Your task to perform on an android device: change keyboard looks Image 0: 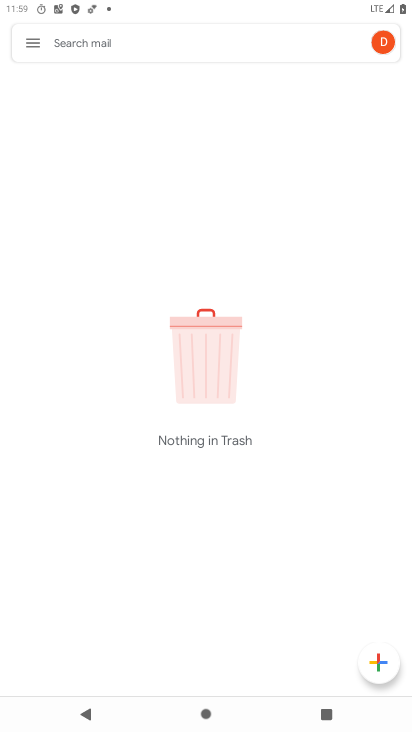
Step 0: press home button
Your task to perform on an android device: change keyboard looks Image 1: 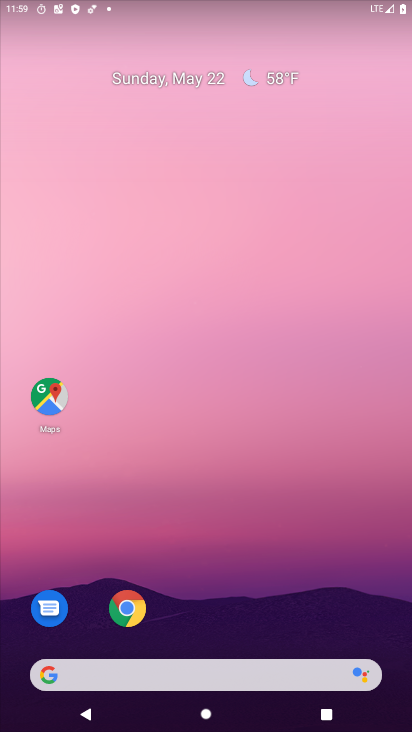
Step 1: drag from (230, 634) to (169, 94)
Your task to perform on an android device: change keyboard looks Image 2: 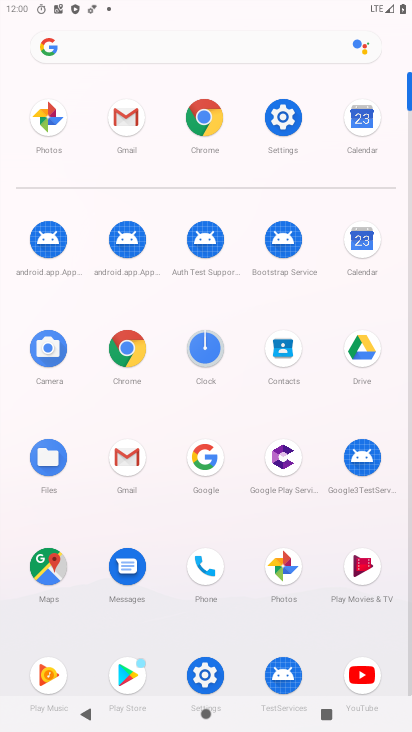
Step 2: click (291, 140)
Your task to perform on an android device: change keyboard looks Image 3: 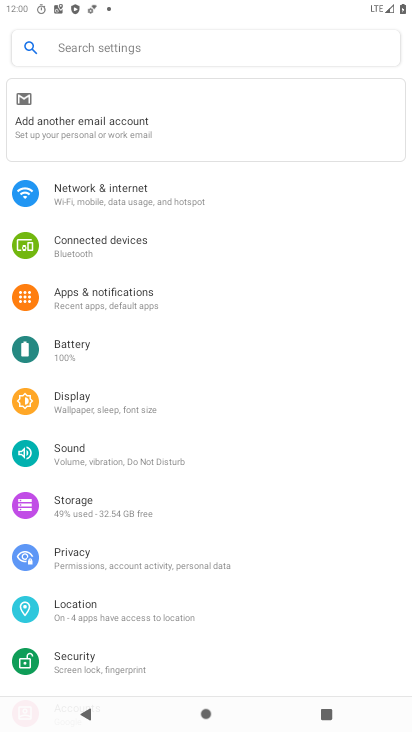
Step 3: drag from (170, 666) to (148, 191)
Your task to perform on an android device: change keyboard looks Image 4: 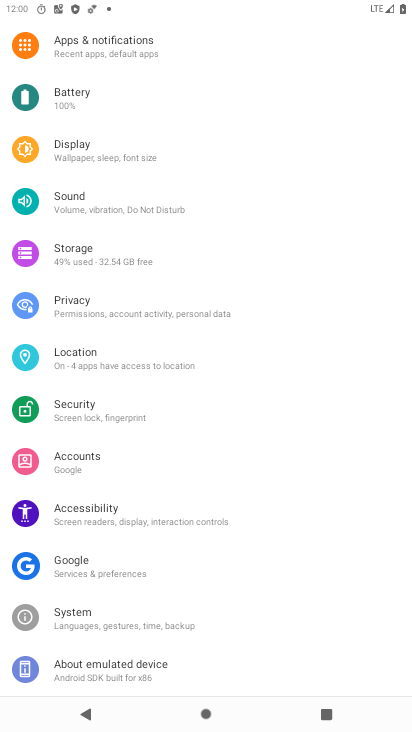
Step 4: click (185, 683)
Your task to perform on an android device: change keyboard looks Image 5: 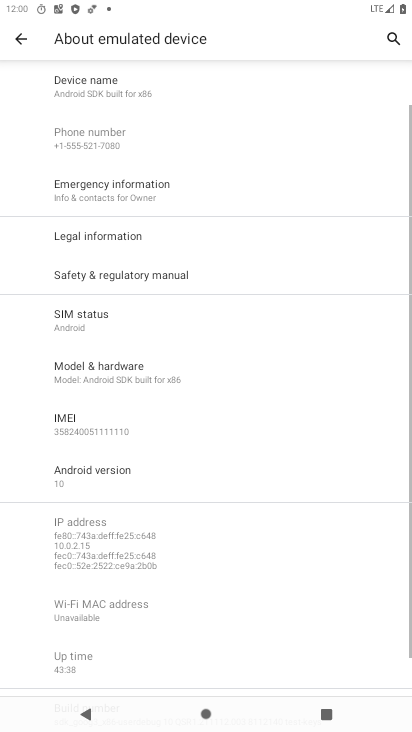
Step 5: click (14, 34)
Your task to perform on an android device: change keyboard looks Image 6: 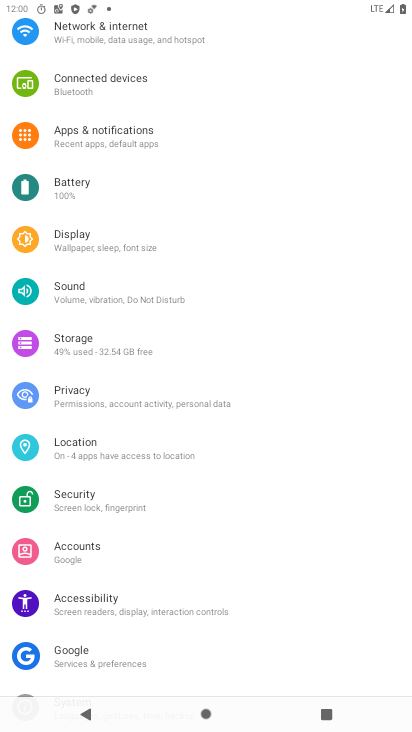
Step 6: drag from (225, 673) to (156, 118)
Your task to perform on an android device: change keyboard looks Image 7: 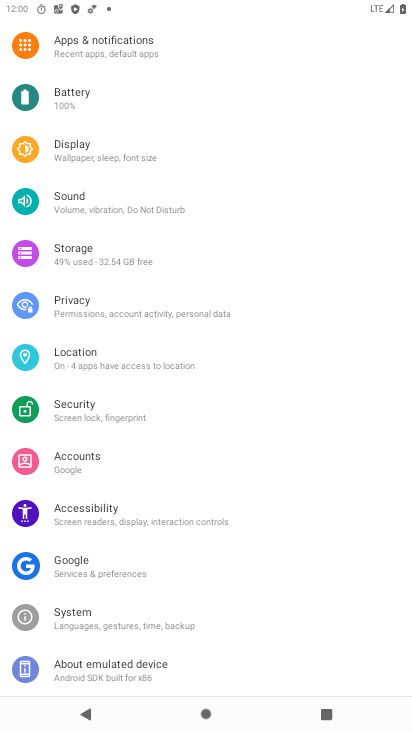
Step 7: click (261, 624)
Your task to perform on an android device: change keyboard looks Image 8: 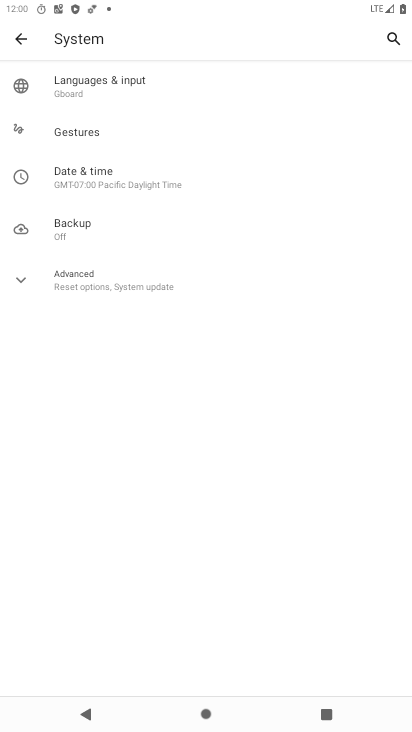
Step 8: click (211, 77)
Your task to perform on an android device: change keyboard looks Image 9: 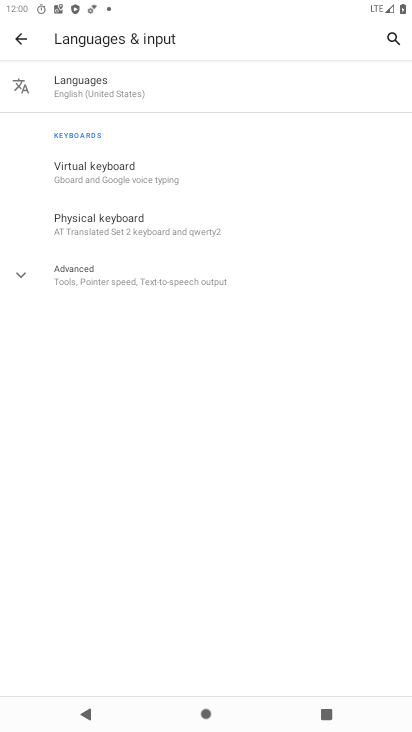
Step 9: click (202, 165)
Your task to perform on an android device: change keyboard looks Image 10: 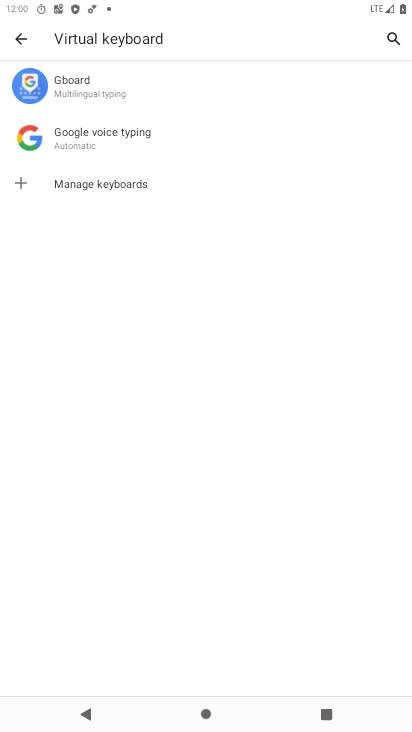
Step 10: click (182, 83)
Your task to perform on an android device: change keyboard looks Image 11: 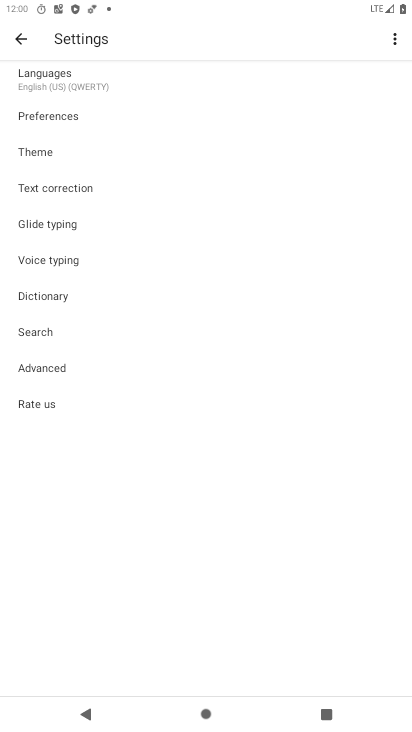
Step 11: click (139, 153)
Your task to perform on an android device: change keyboard looks Image 12: 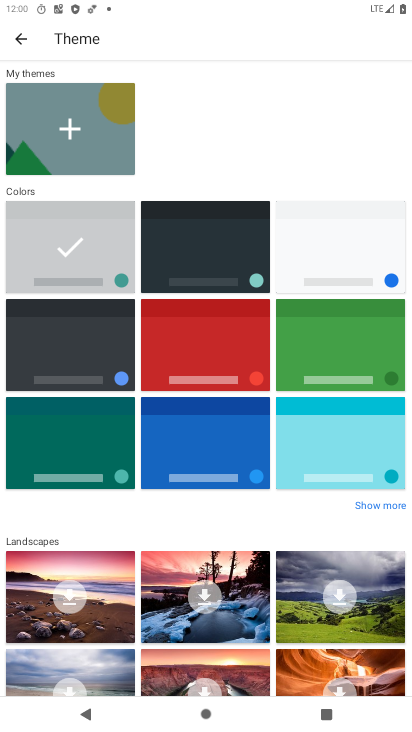
Step 12: click (178, 202)
Your task to perform on an android device: change keyboard looks Image 13: 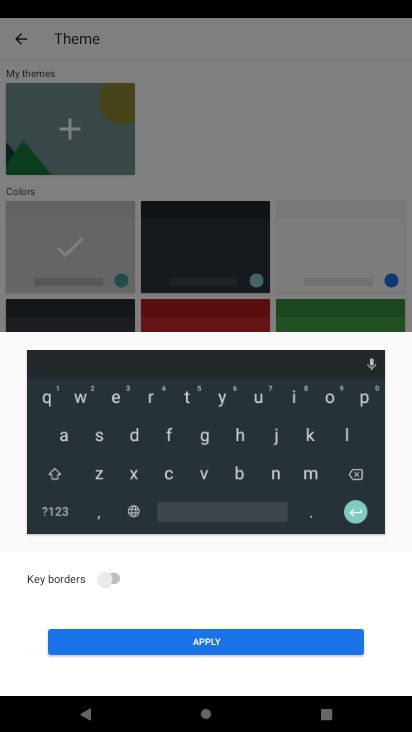
Step 13: click (250, 642)
Your task to perform on an android device: change keyboard looks Image 14: 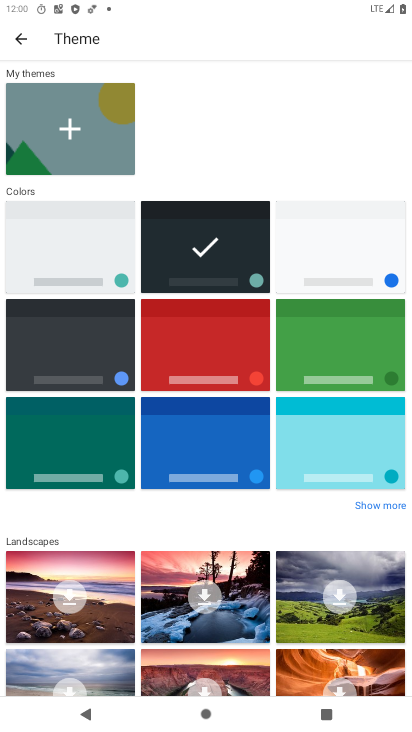
Step 14: task complete